Your task to perform on an android device: Open internet settings Image 0: 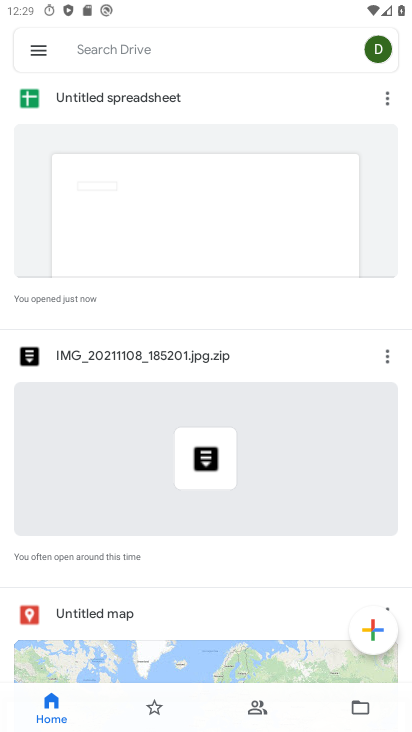
Step 0: press back button
Your task to perform on an android device: Open internet settings Image 1: 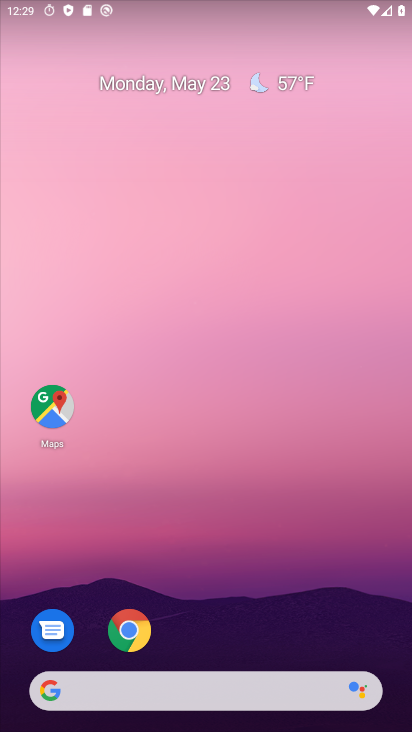
Step 1: drag from (237, 517) to (188, 4)
Your task to perform on an android device: Open internet settings Image 2: 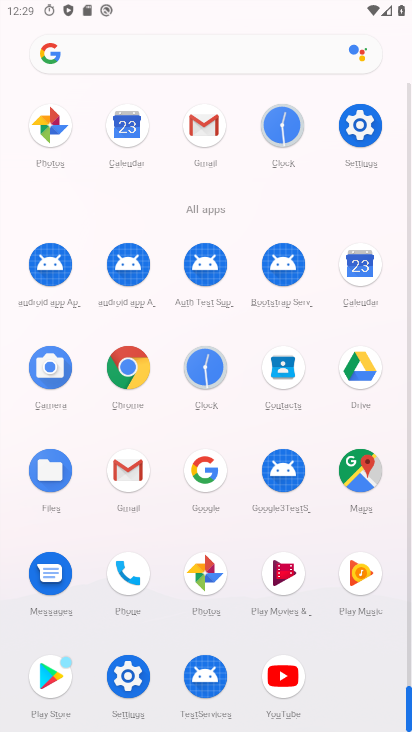
Step 2: drag from (0, 486) to (8, 230)
Your task to perform on an android device: Open internet settings Image 3: 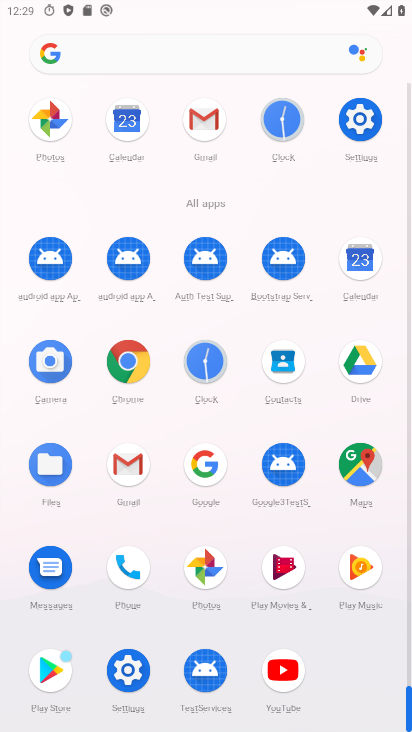
Step 3: click (125, 664)
Your task to perform on an android device: Open internet settings Image 4: 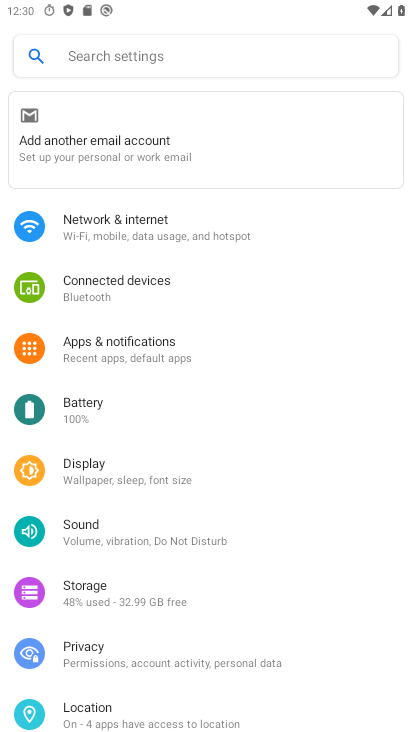
Step 4: click (155, 214)
Your task to perform on an android device: Open internet settings Image 5: 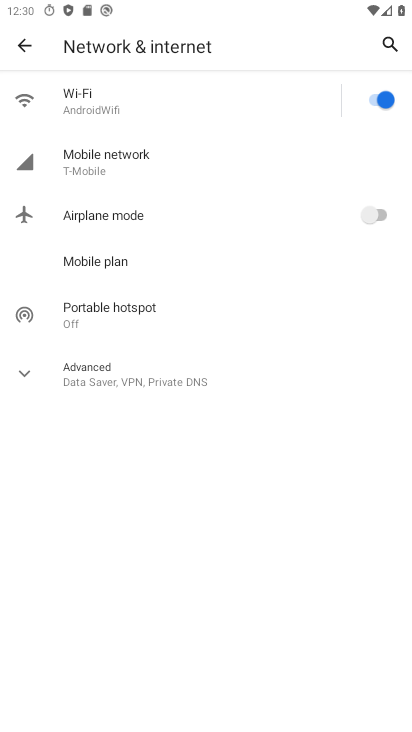
Step 5: click (48, 374)
Your task to perform on an android device: Open internet settings Image 6: 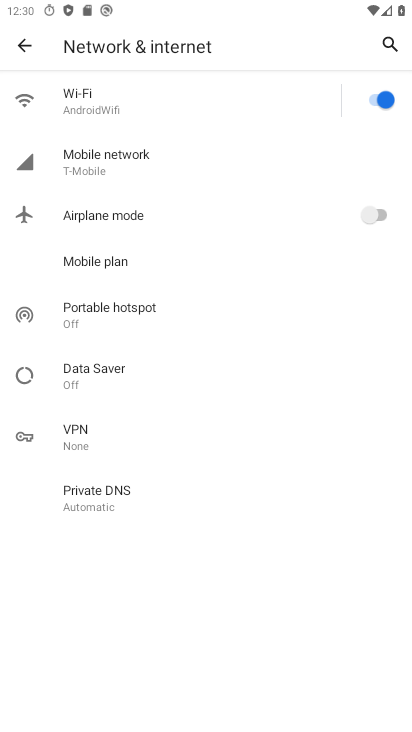
Step 6: task complete